Your task to perform on an android device: Show me productivity apps on the Play Store Image 0: 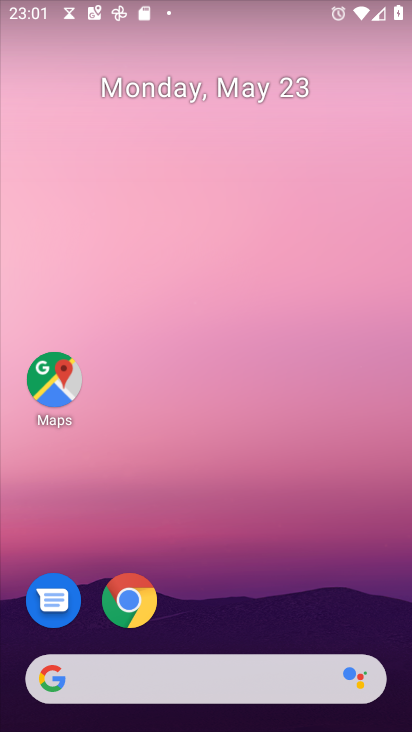
Step 0: drag from (196, 719) to (175, 86)
Your task to perform on an android device: Show me productivity apps on the Play Store Image 1: 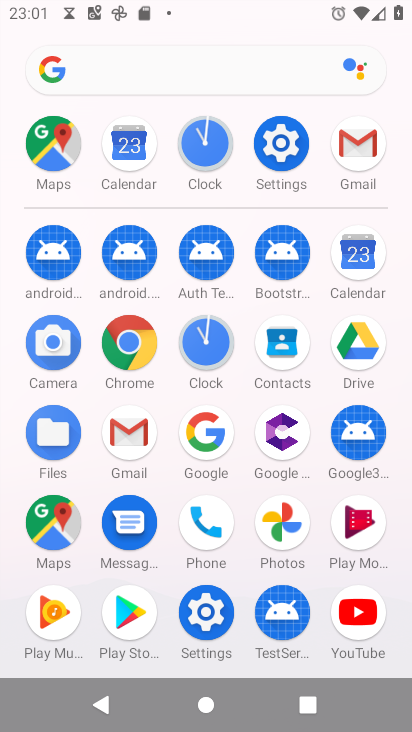
Step 1: click (123, 603)
Your task to perform on an android device: Show me productivity apps on the Play Store Image 2: 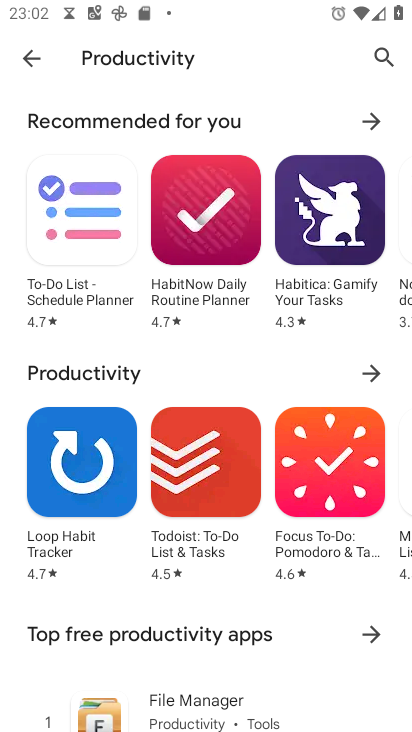
Step 2: task complete